Your task to perform on an android device: Go to ESPN.com Image 0: 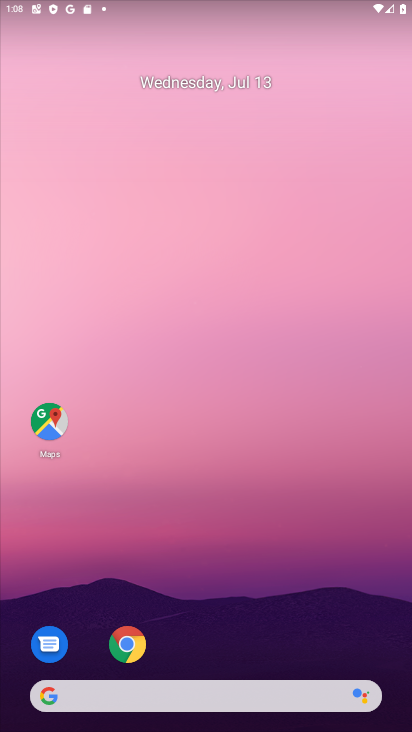
Step 0: click (130, 644)
Your task to perform on an android device: Go to ESPN.com Image 1: 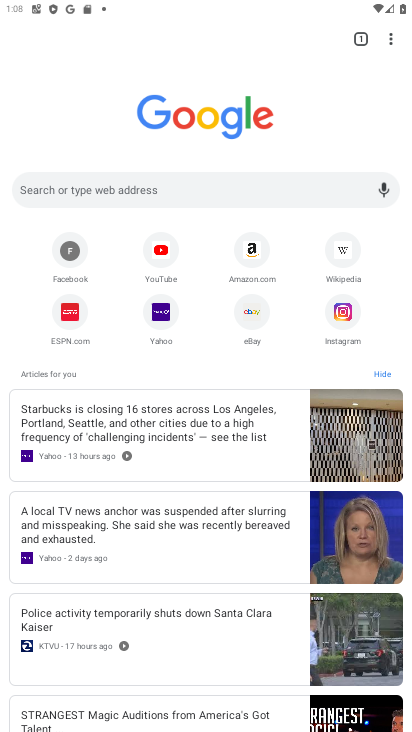
Step 1: click (67, 316)
Your task to perform on an android device: Go to ESPN.com Image 2: 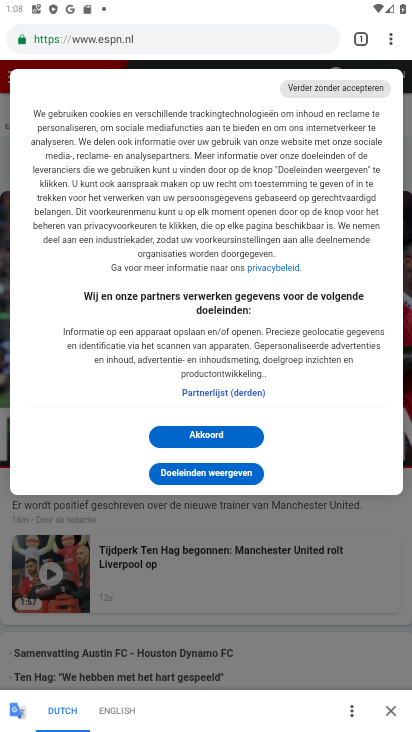
Step 2: task complete